Your task to perform on an android device: open chrome privacy settings Image 0: 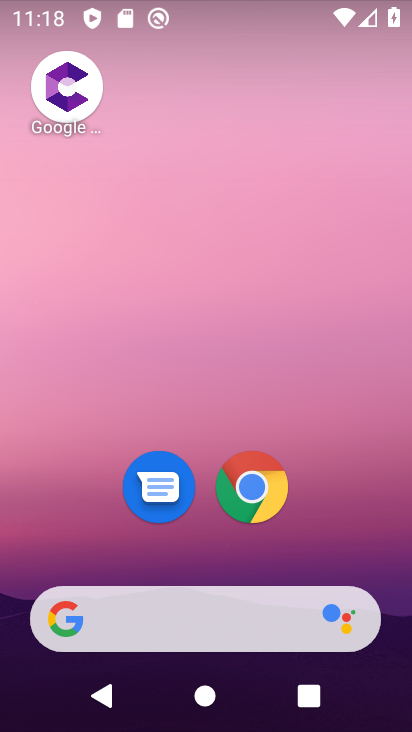
Step 0: click (257, 497)
Your task to perform on an android device: open chrome privacy settings Image 1: 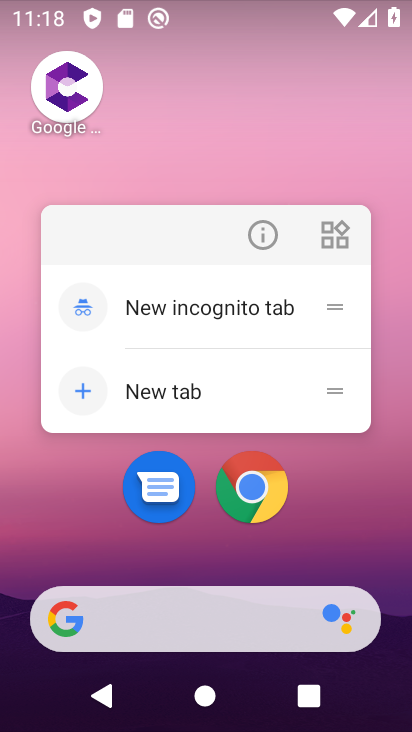
Step 1: click (262, 512)
Your task to perform on an android device: open chrome privacy settings Image 2: 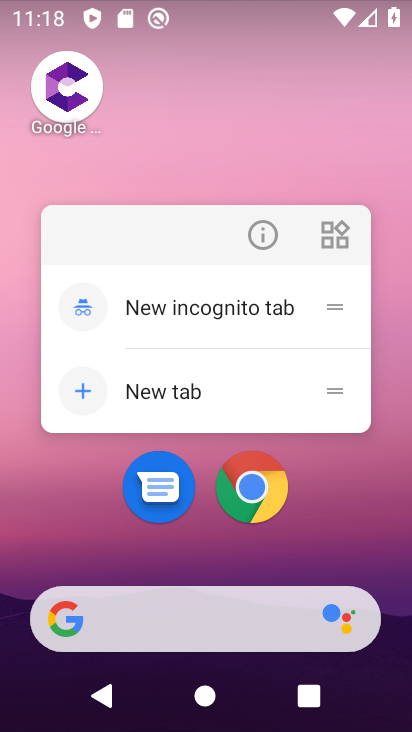
Step 2: click (257, 485)
Your task to perform on an android device: open chrome privacy settings Image 3: 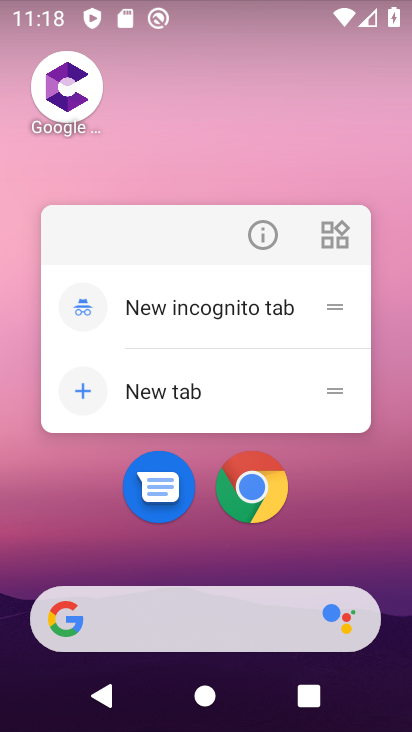
Step 3: click (257, 507)
Your task to perform on an android device: open chrome privacy settings Image 4: 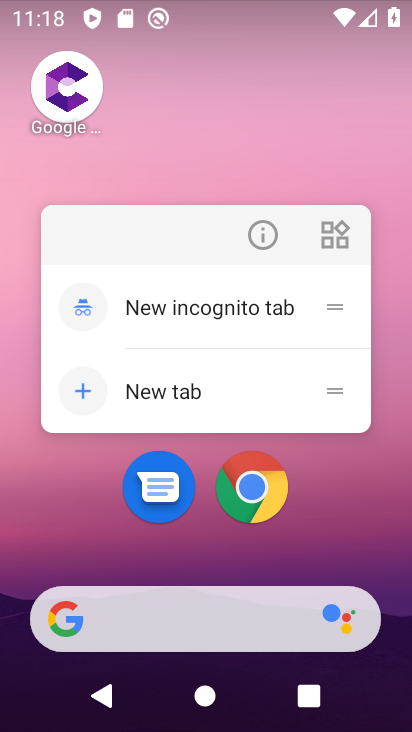
Step 4: click (257, 499)
Your task to perform on an android device: open chrome privacy settings Image 5: 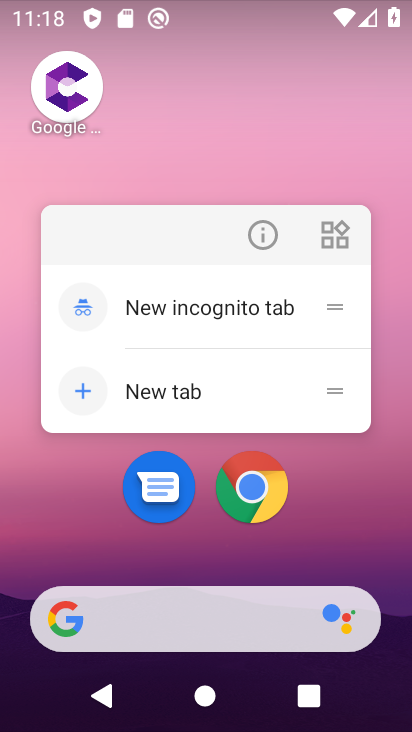
Step 5: click (260, 492)
Your task to perform on an android device: open chrome privacy settings Image 6: 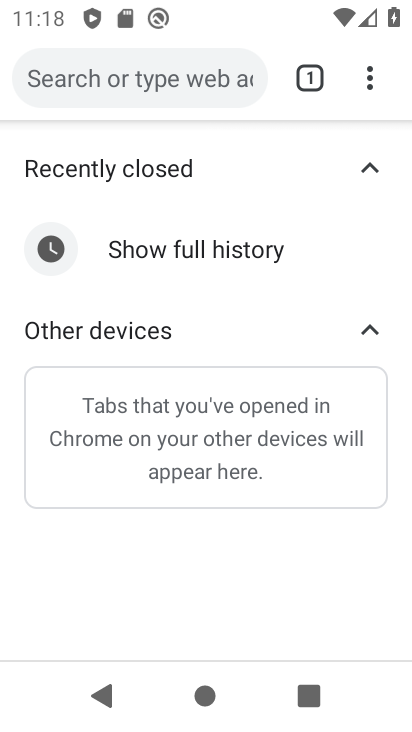
Step 6: drag from (370, 87) to (131, 564)
Your task to perform on an android device: open chrome privacy settings Image 7: 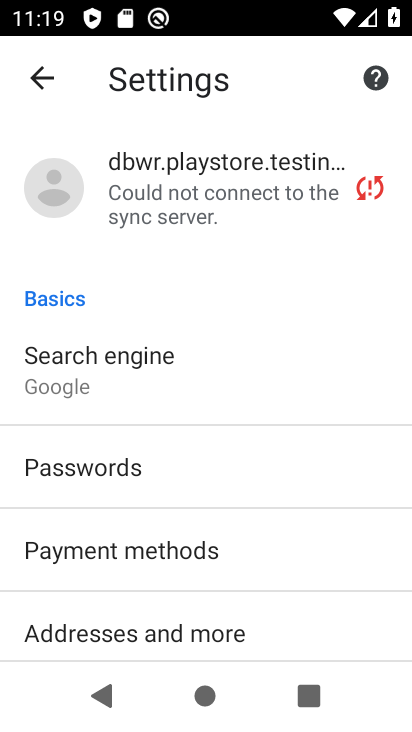
Step 7: drag from (76, 668) to (314, 174)
Your task to perform on an android device: open chrome privacy settings Image 8: 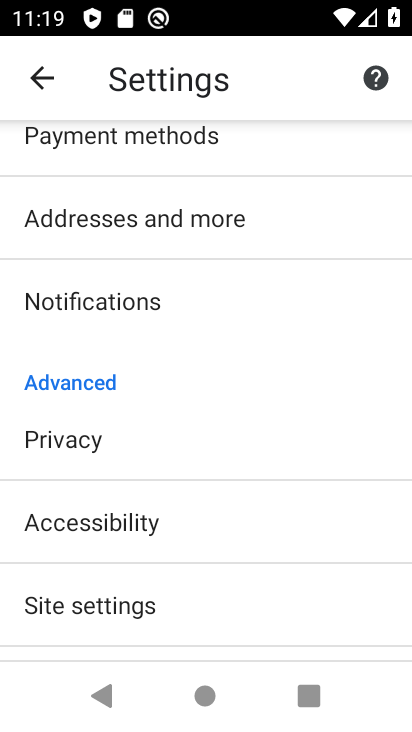
Step 8: drag from (125, 585) to (231, 226)
Your task to perform on an android device: open chrome privacy settings Image 9: 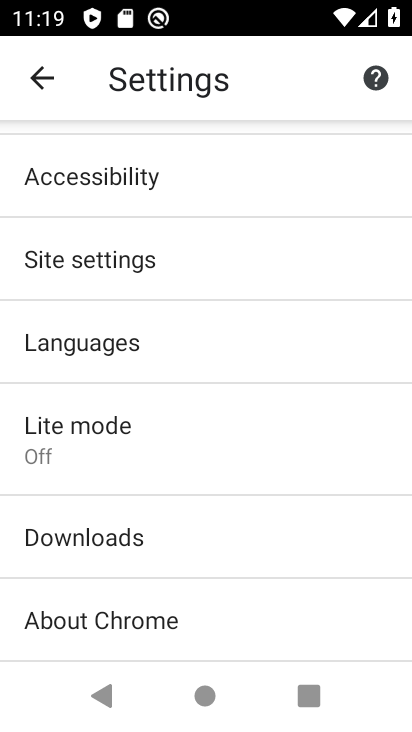
Step 9: drag from (172, 429) to (172, 474)
Your task to perform on an android device: open chrome privacy settings Image 10: 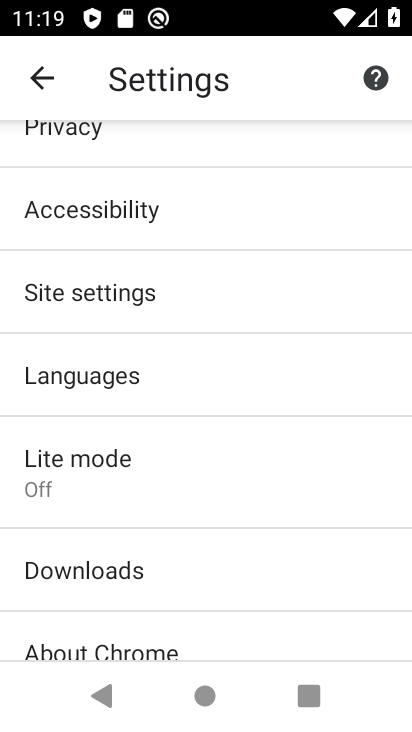
Step 10: click (143, 143)
Your task to perform on an android device: open chrome privacy settings Image 11: 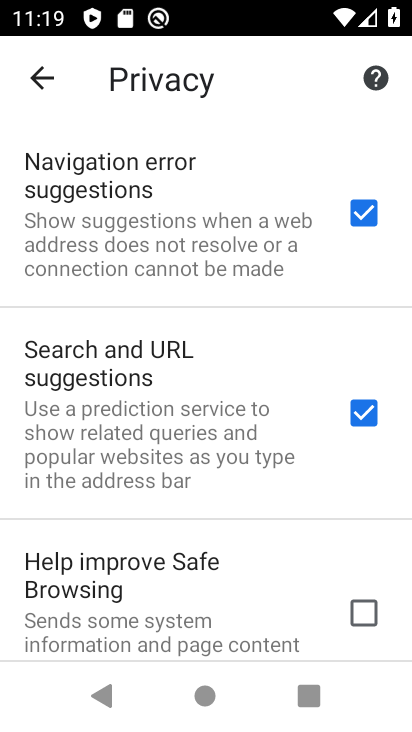
Step 11: task complete